Your task to perform on an android device: toggle location history Image 0: 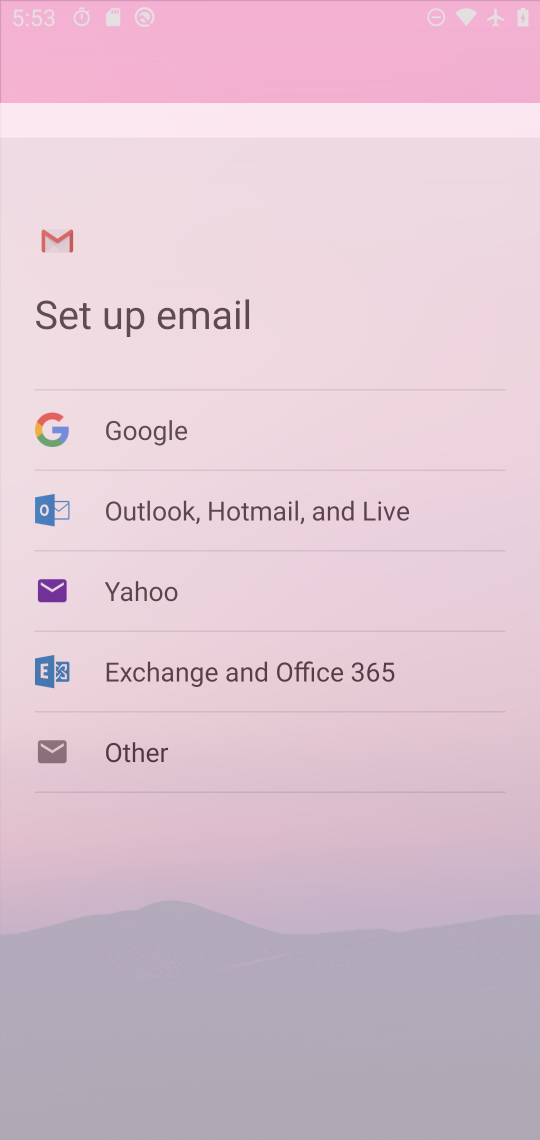
Step 0: press home button
Your task to perform on an android device: toggle location history Image 1: 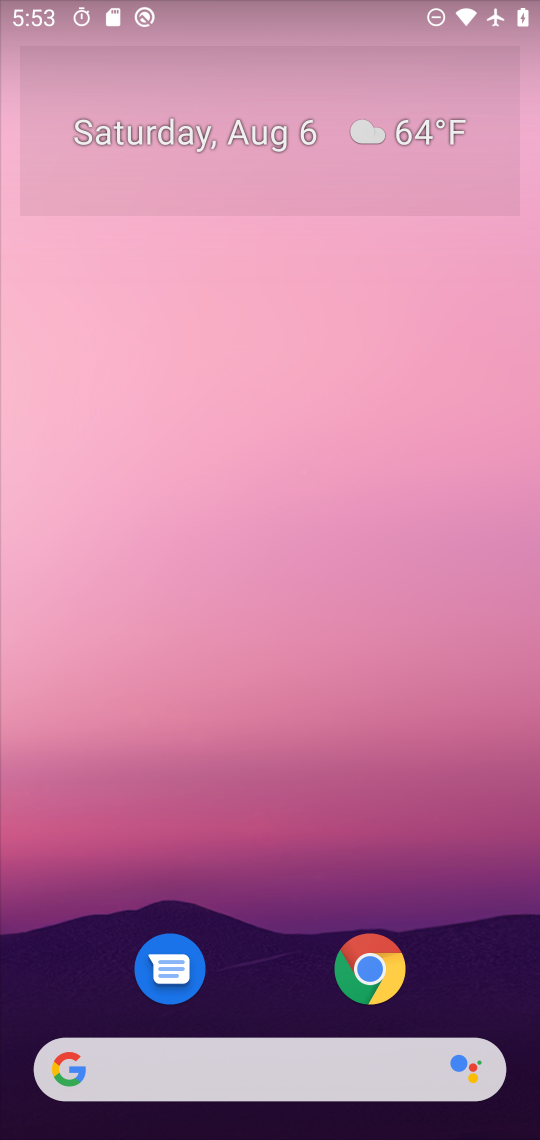
Step 1: drag from (274, 988) to (309, 124)
Your task to perform on an android device: toggle location history Image 2: 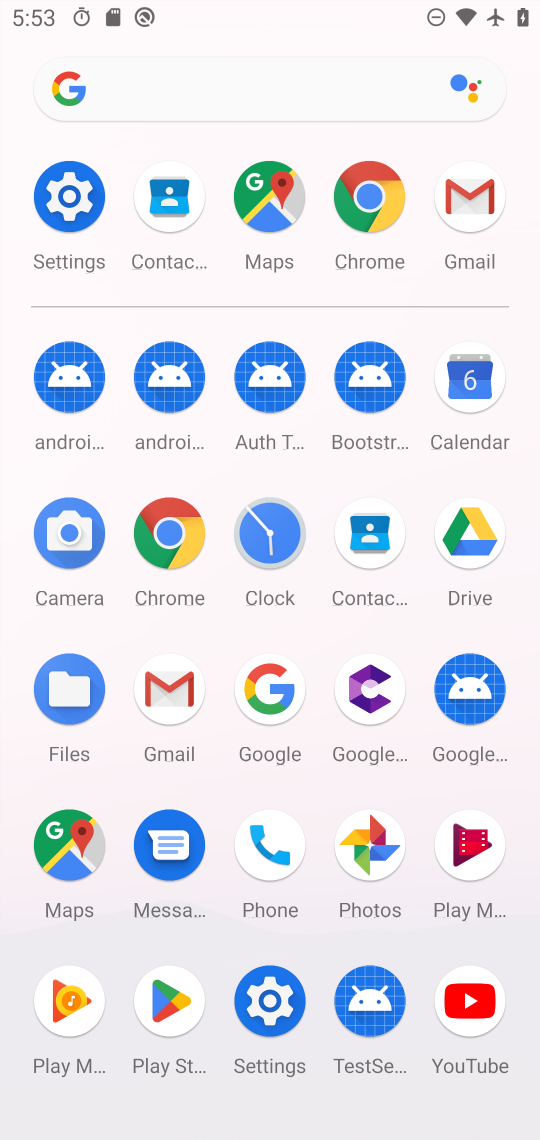
Step 2: click (71, 181)
Your task to perform on an android device: toggle location history Image 3: 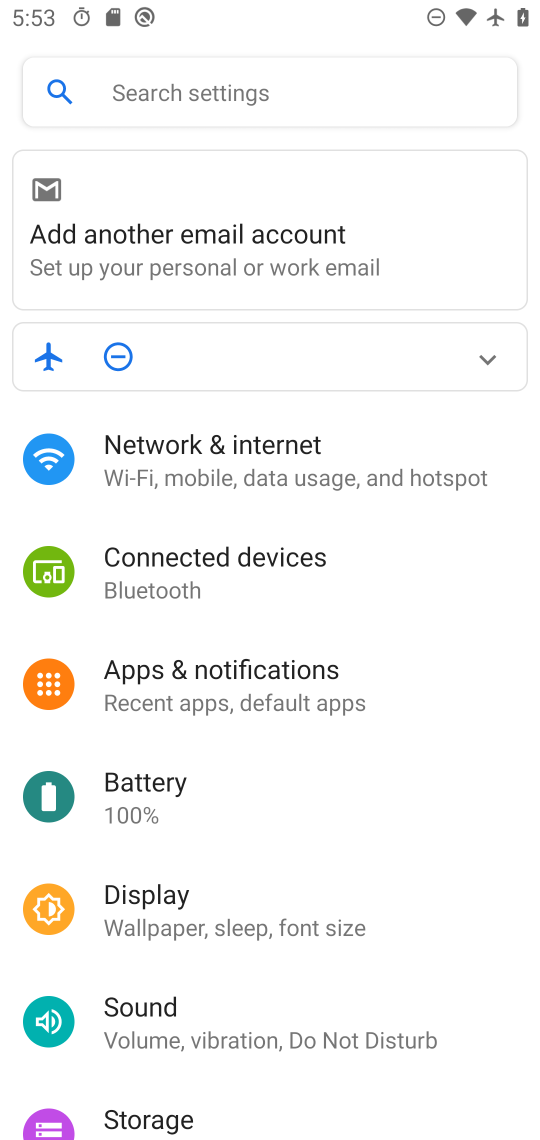
Step 3: drag from (476, 928) to (539, 363)
Your task to perform on an android device: toggle location history Image 4: 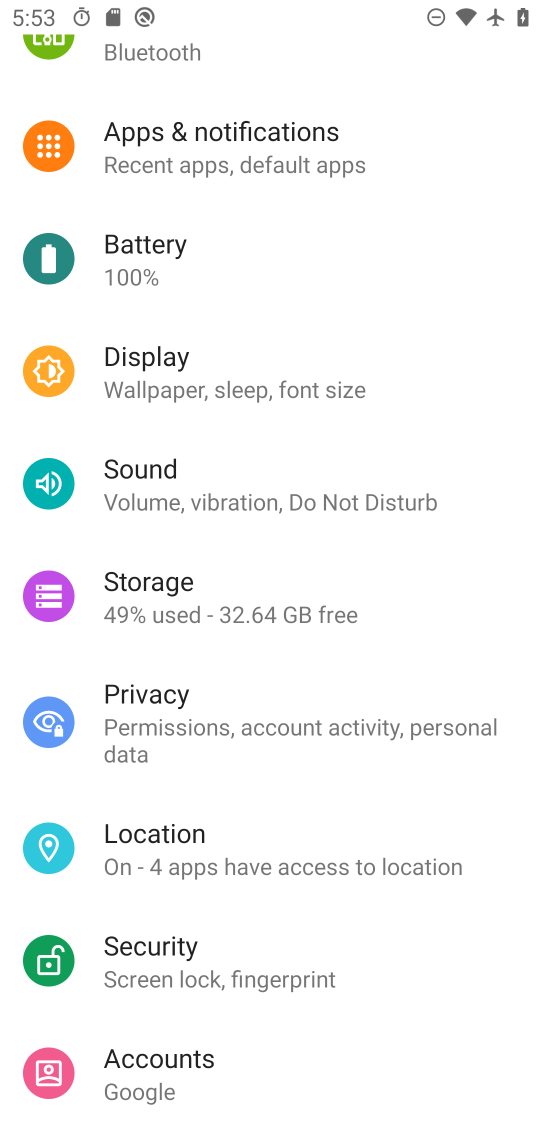
Step 4: click (212, 838)
Your task to perform on an android device: toggle location history Image 5: 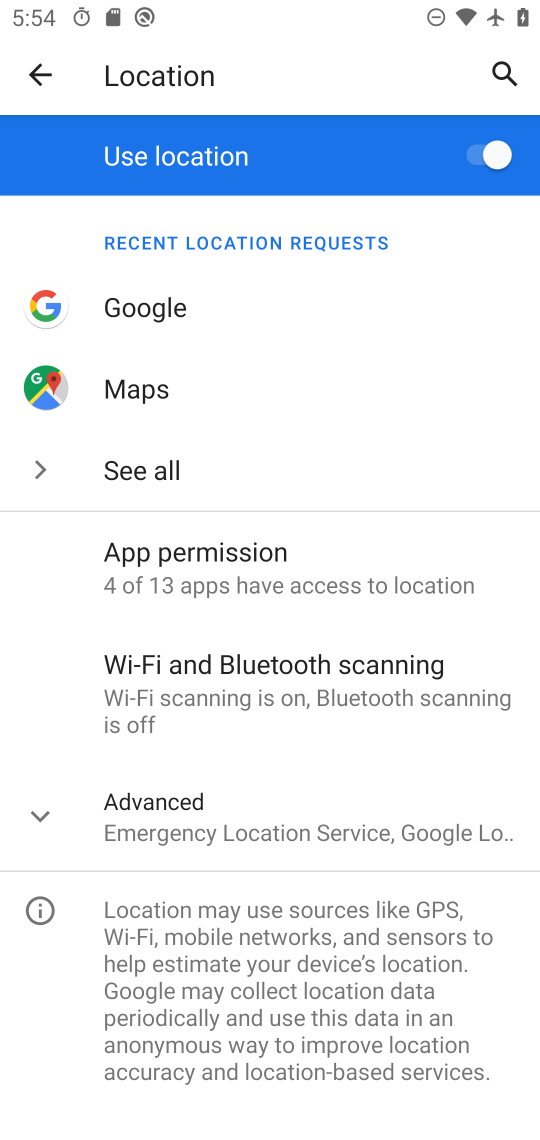
Step 5: click (146, 828)
Your task to perform on an android device: toggle location history Image 6: 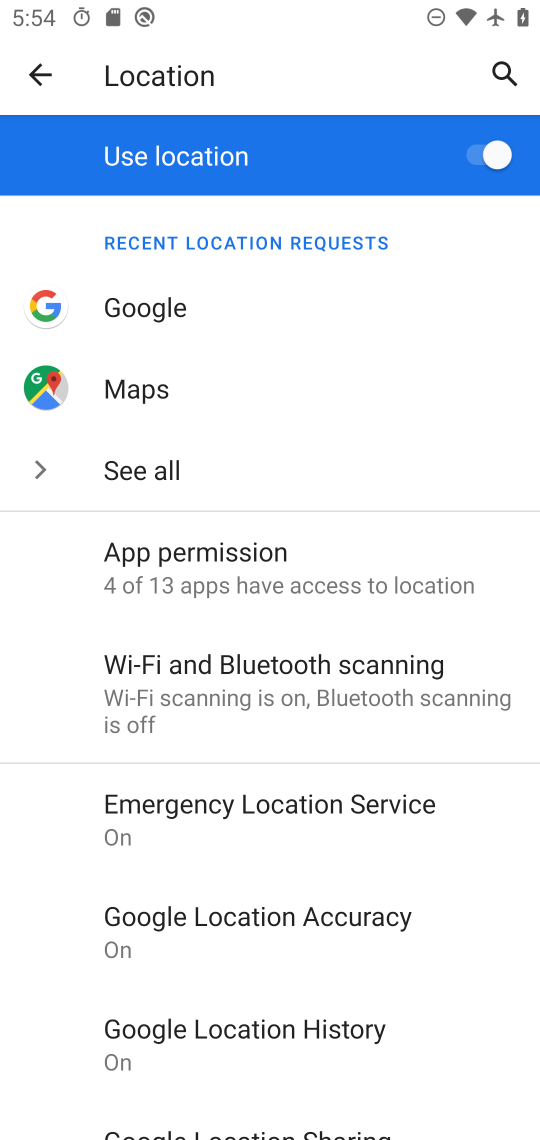
Step 6: click (279, 1026)
Your task to perform on an android device: toggle location history Image 7: 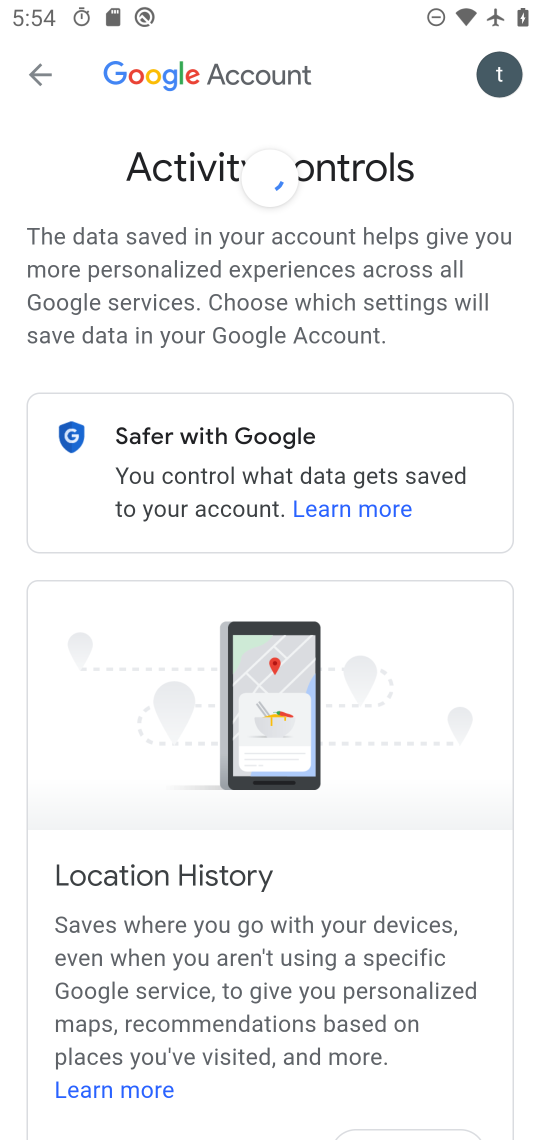
Step 7: drag from (365, 1089) to (347, 339)
Your task to perform on an android device: toggle location history Image 8: 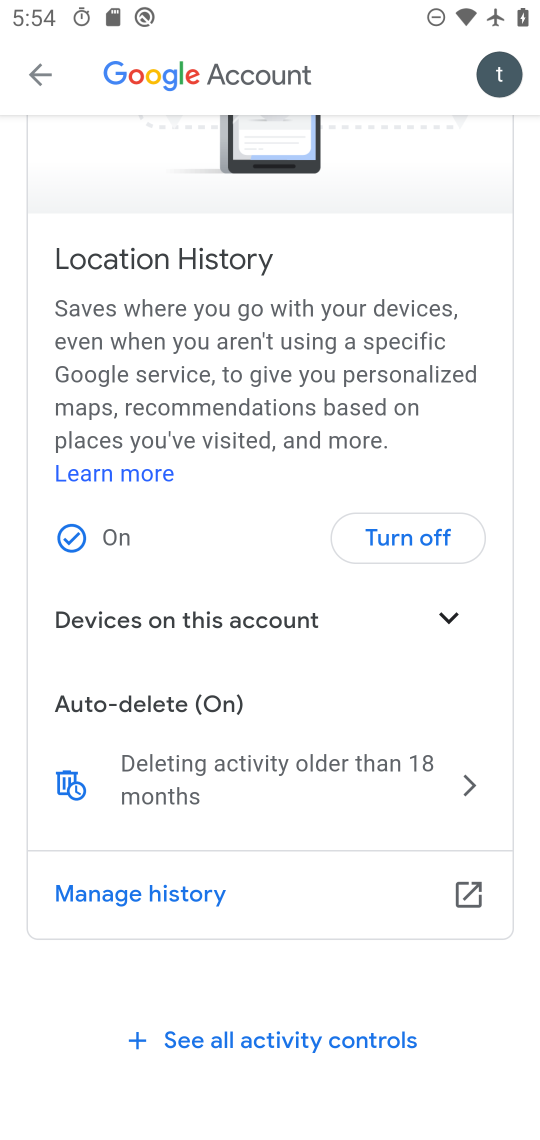
Step 8: click (409, 536)
Your task to perform on an android device: toggle location history Image 9: 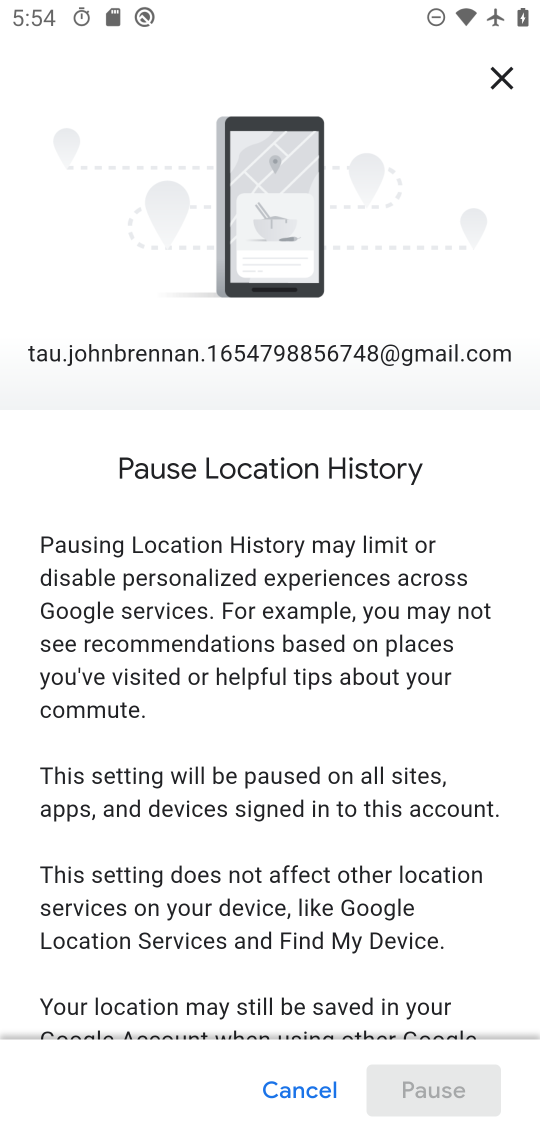
Step 9: drag from (363, 1066) to (362, 425)
Your task to perform on an android device: toggle location history Image 10: 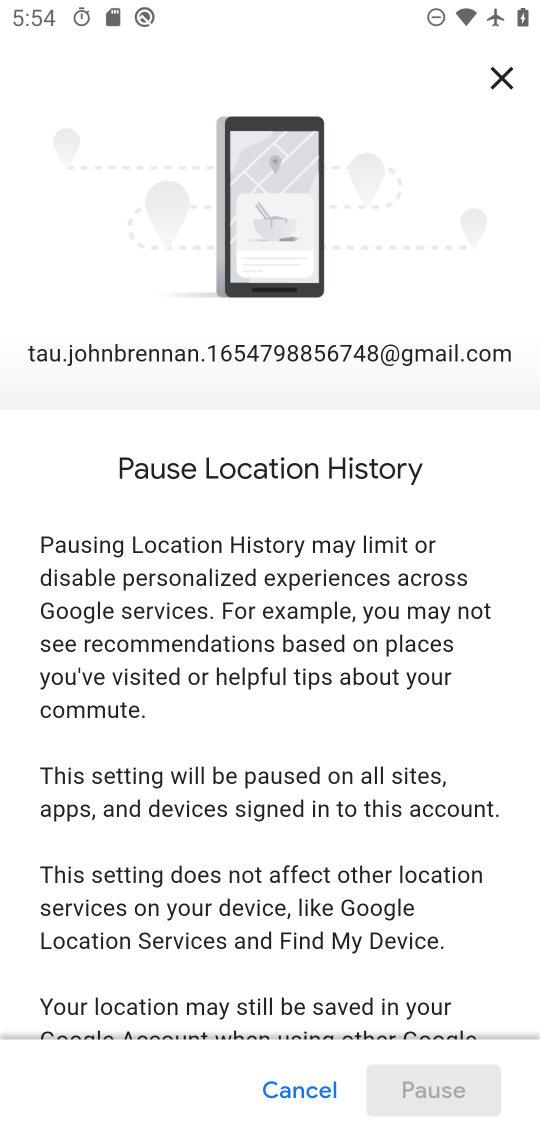
Step 10: drag from (137, 984) to (186, 302)
Your task to perform on an android device: toggle location history Image 11: 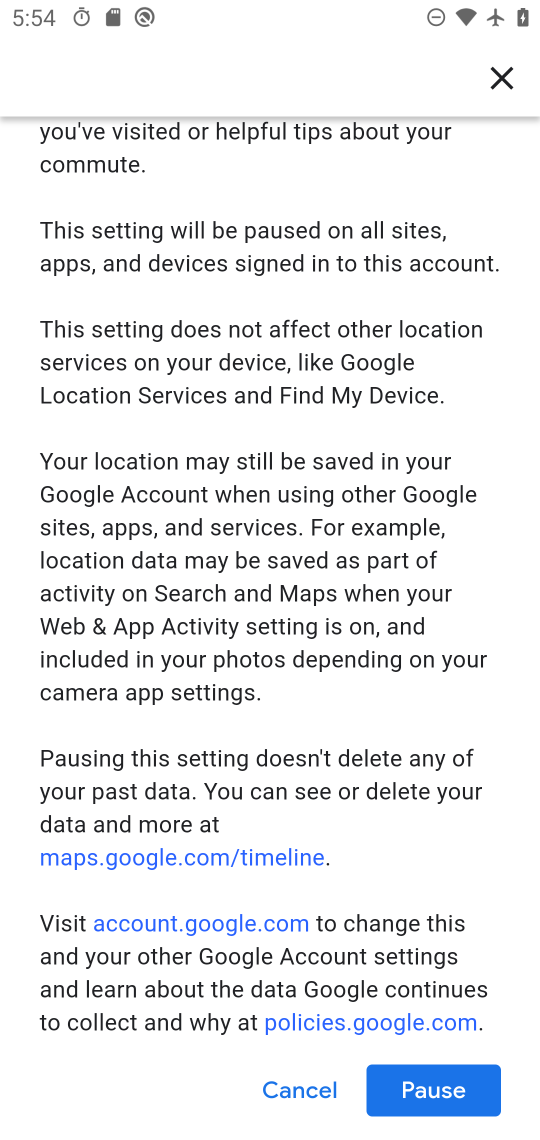
Step 11: click (408, 1091)
Your task to perform on an android device: toggle location history Image 12: 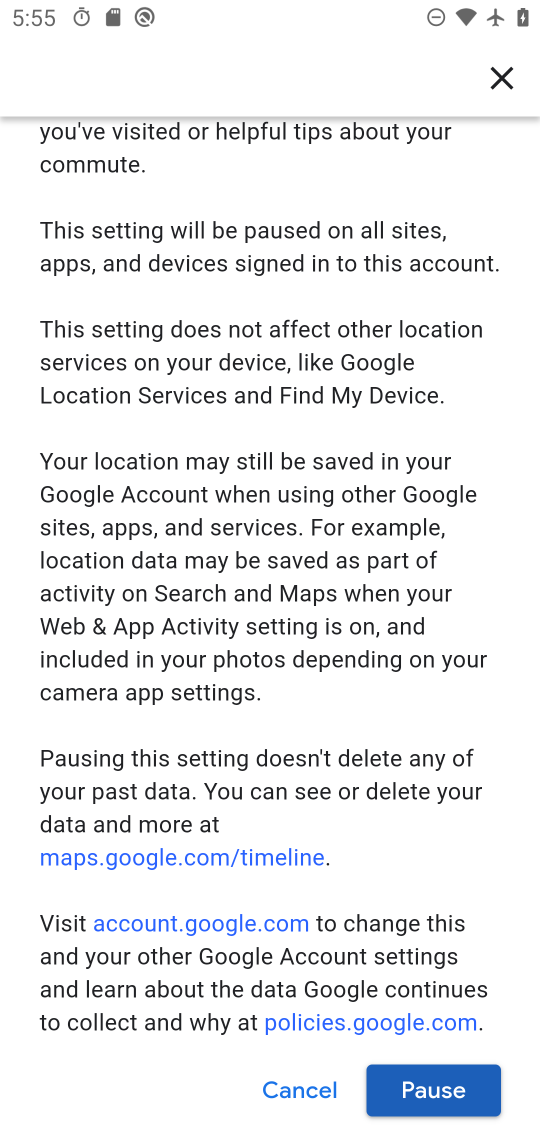
Step 12: click (389, 1088)
Your task to perform on an android device: toggle location history Image 13: 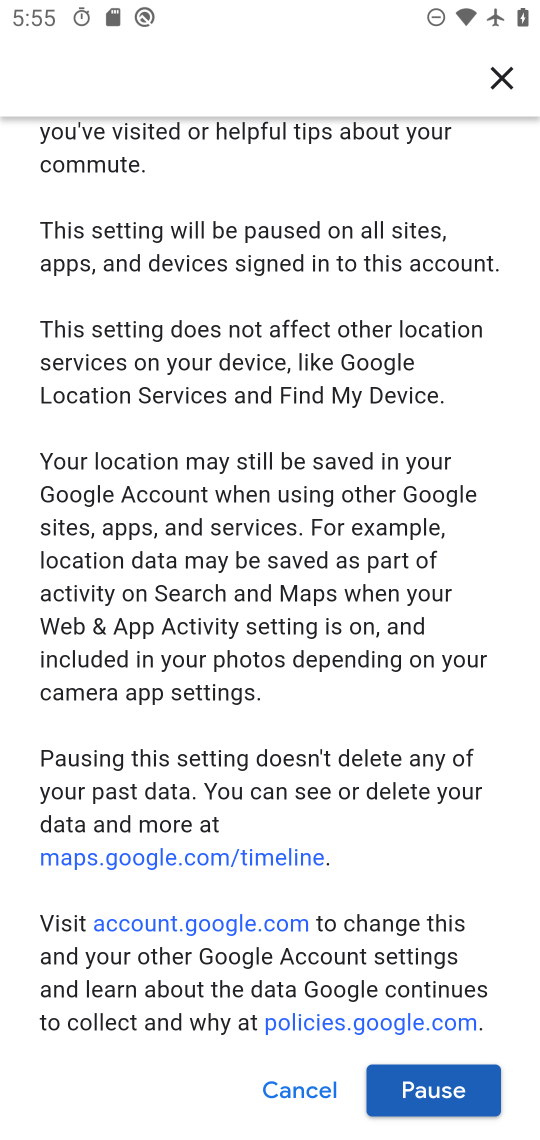
Step 13: click (433, 1083)
Your task to perform on an android device: toggle location history Image 14: 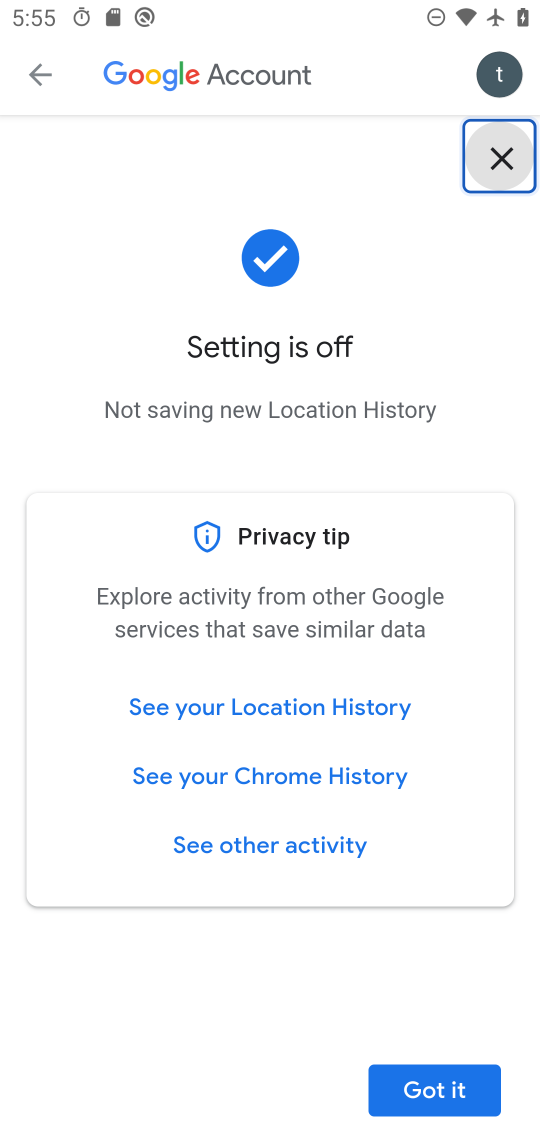
Step 14: click (392, 1092)
Your task to perform on an android device: toggle location history Image 15: 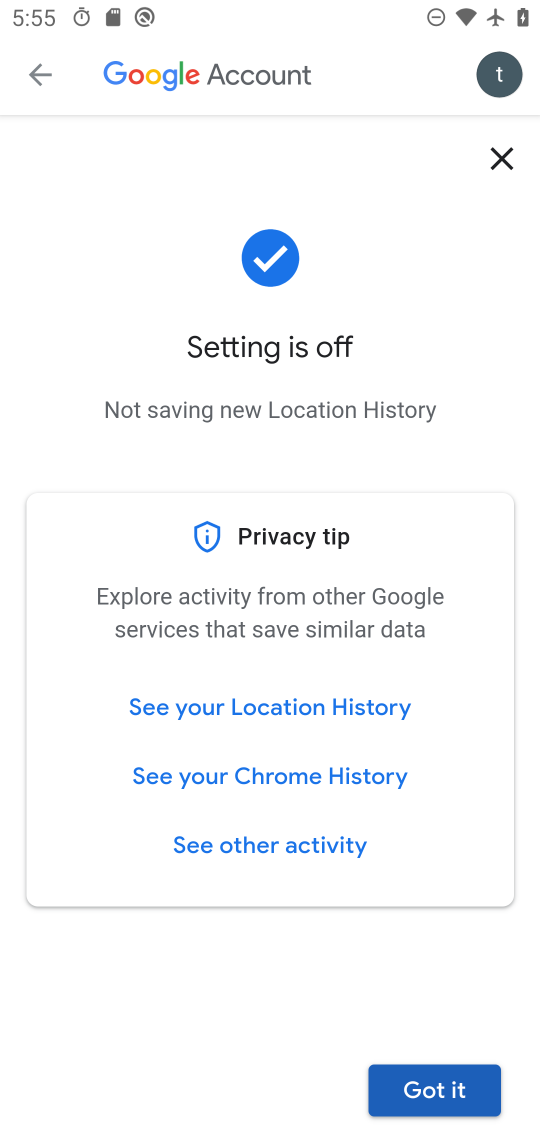
Step 15: click (397, 1088)
Your task to perform on an android device: toggle location history Image 16: 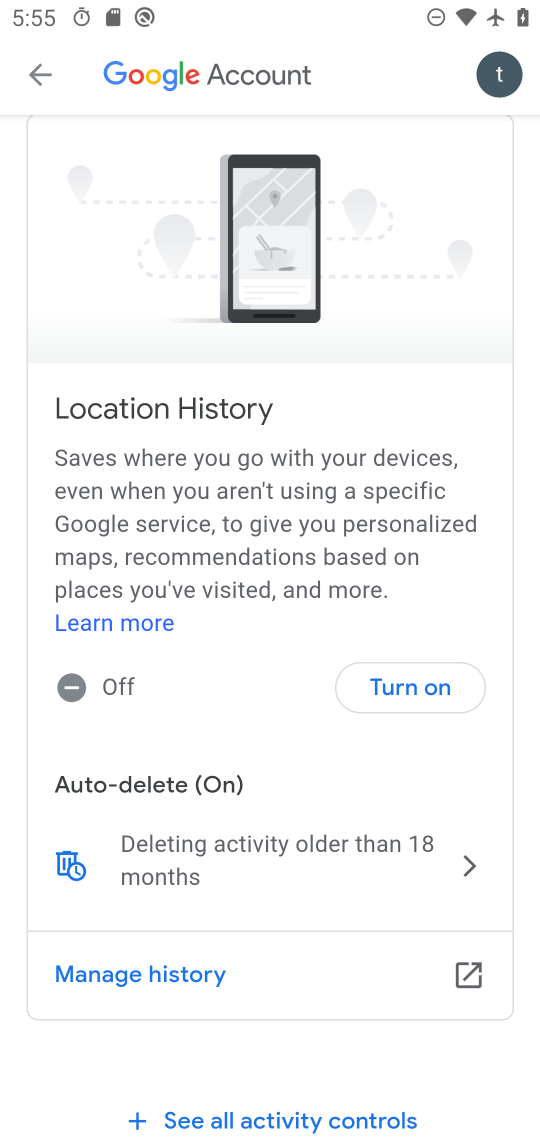
Step 16: task complete